Your task to perform on an android device: turn on wifi Image 0: 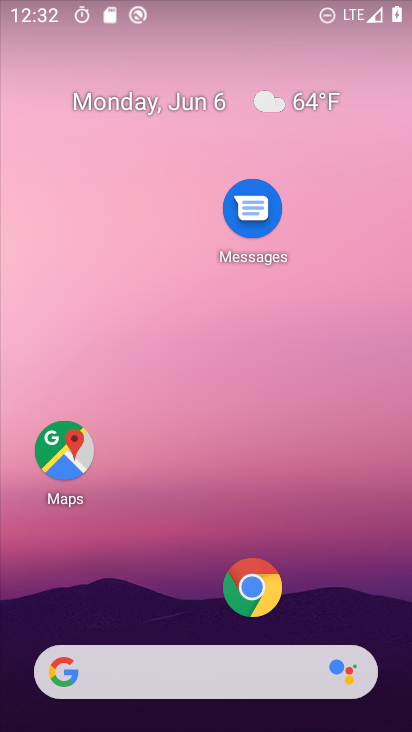
Step 0: drag from (211, 415) to (204, 553)
Your task to perform on an android device: turn on wifi Image 1: 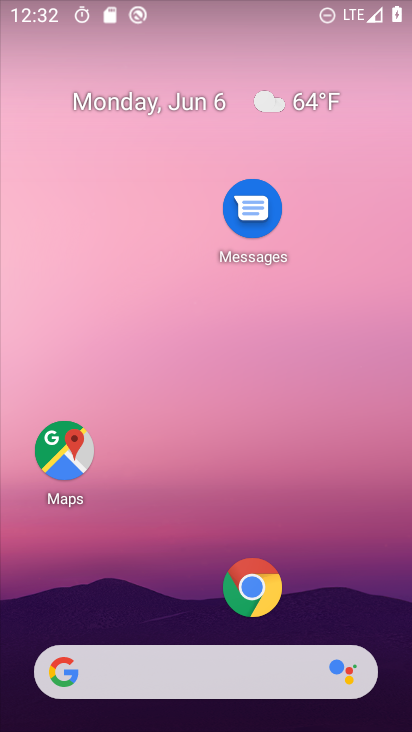
Step 1: drag from (232, 9) to (243, 531)
Your task to perform on an android device: turn on wifi Image 2: 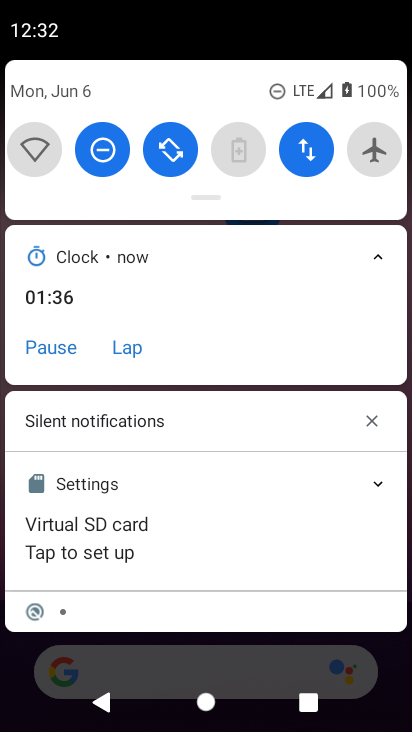
Step 2: click (45, 160)
Your task to perform on an android device: turn on wifi Image 3: 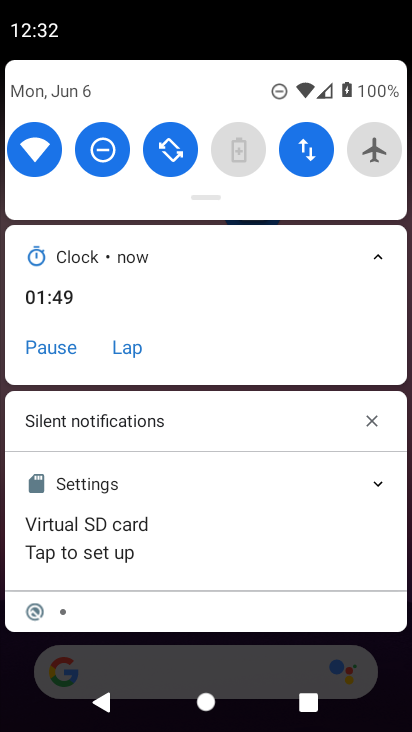
Step 3: task complete